Your task to perform on an android device: change timer sound Image 0: 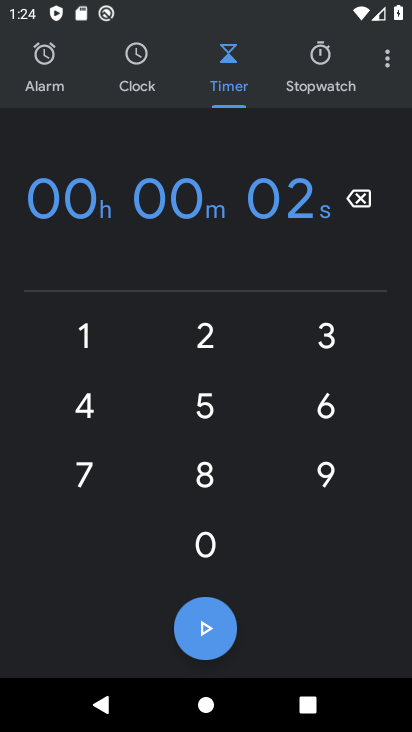
Step 0: click (382, 63)
Your task to perform on an android device: change timer sound Image 1: 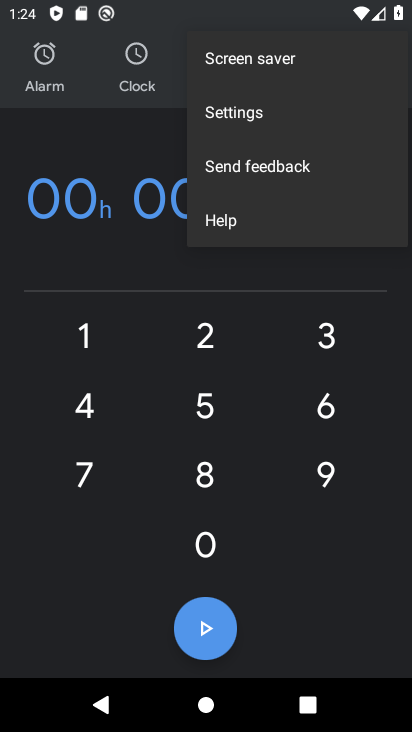
Step 1: click (272, 122)
Your task to perform on an android device: change timer sound Image 2: 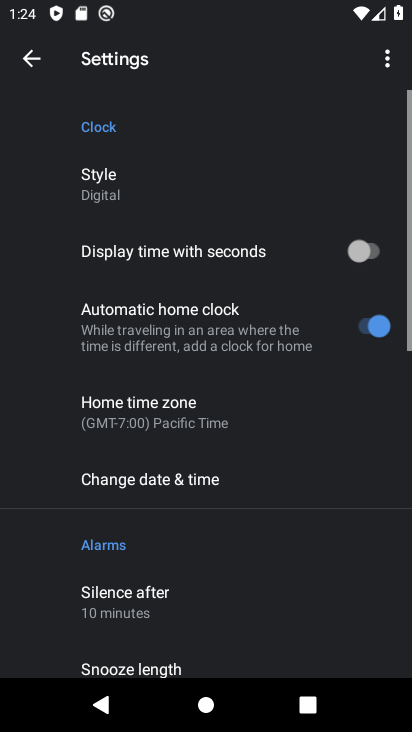
Step 2: drag from (211, 504) to (231, 12)
Your task to perform on an android device: change timer sound Image 3: 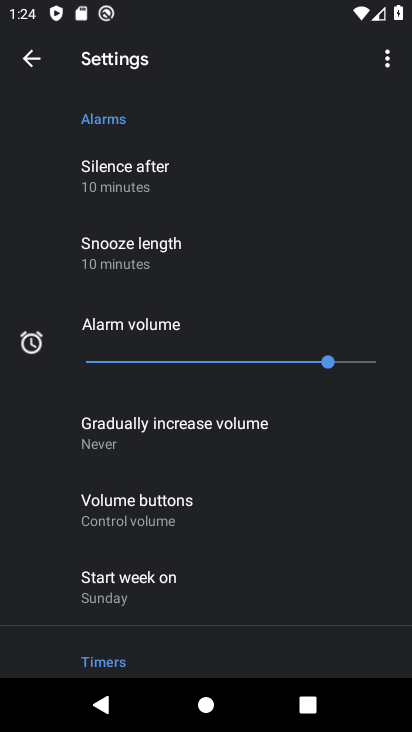
Step 3: drag from (216, 580) to (225, 284)
Your task to perform on an android device: change timer sound Image 4: 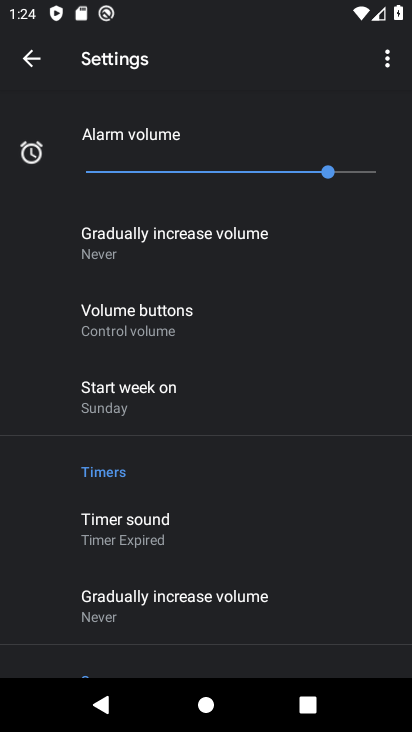
Step 4: click (127, 536)
Your task to perform on an android device: change timer sound Image 5: 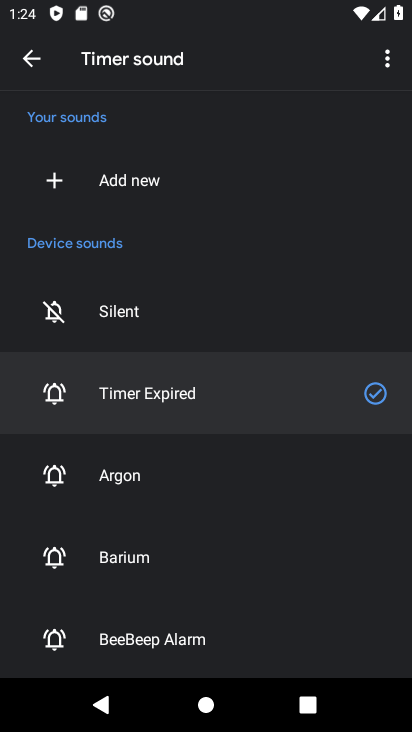
Step 5: drag from (210, 539) to (248, 596)
Your task to perform on an android device: change timer sound Image 6: 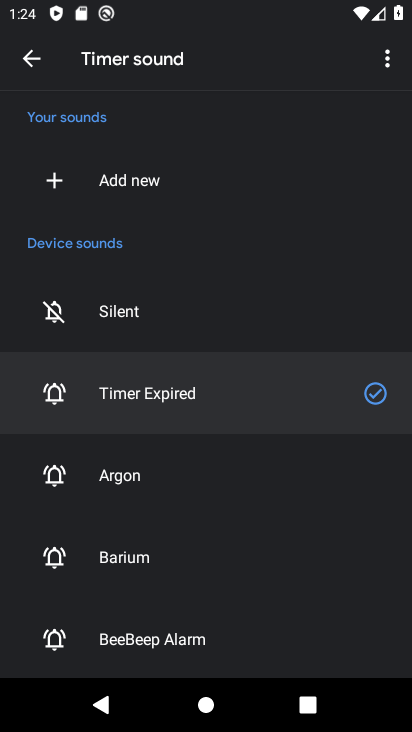
Step 6: drag from (163, 215) to (183, 441)
Your task to perform on an android device: change timer sound Image 7: 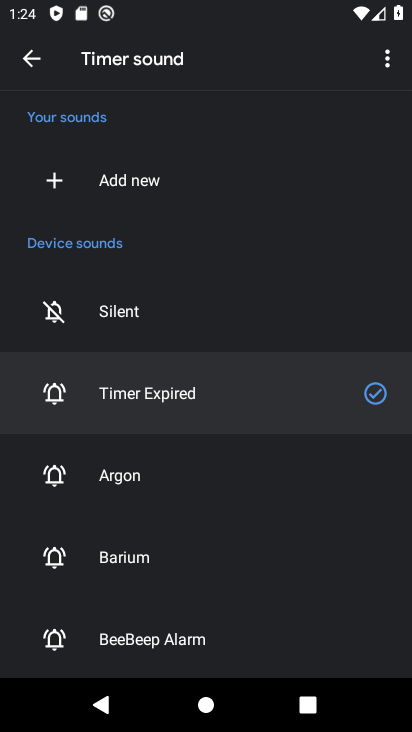
Step 7: click (130, 485)
Your task to perform on an android device: change timer sound Image 8: 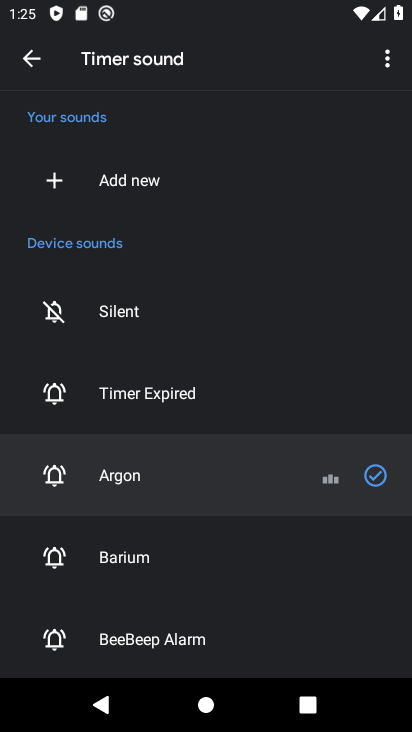
Step 8: task complete